Your task to perform on an android device: see sites visited before in the chrome app Image 0: 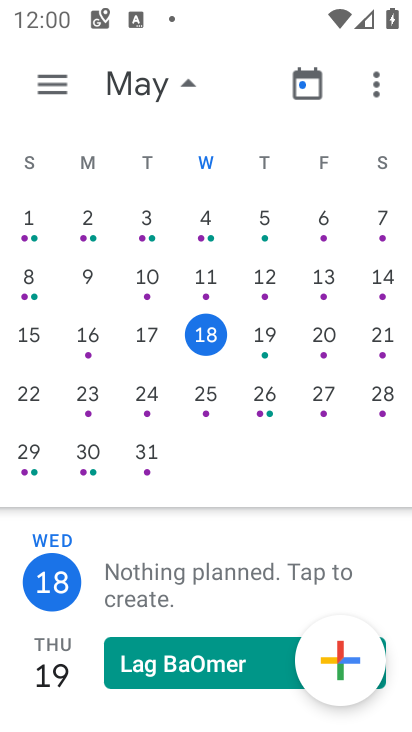
Step 0: press home button
Your task to perform on an android device: see sites visited before in the chrome app Image 1: 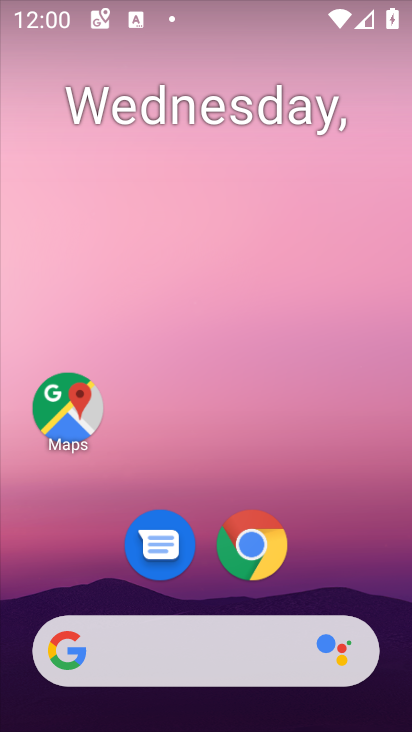
Step 1: click (250, 547)
Your task to perform on an android device: see sites visited before in the chrome app Image 2: 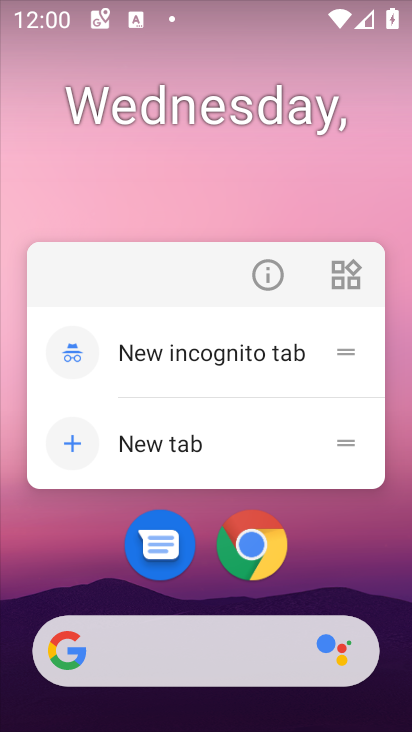
Step 2: click (245, 550)
Your task to perform on an android device: see sites visited before in the chrome app Image 3: 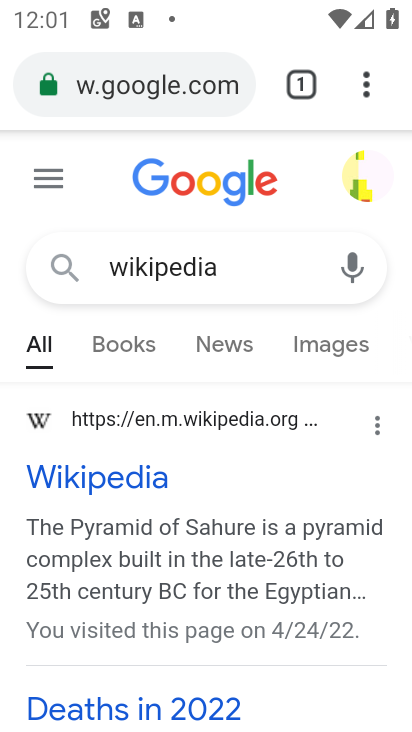
Step 3: click (367, 92)
Your task to perform on an android device: see sites visited before in the chrome app Image 4: 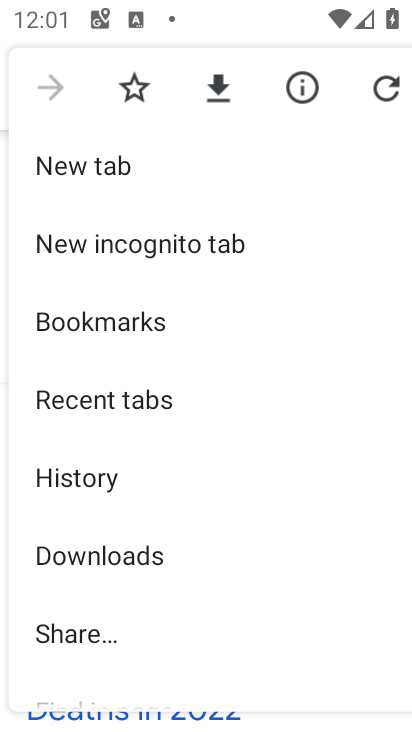
Step 4: click (138, 408)
Your task to perform on an android device: see sites visited before in the chrome app Image 5: 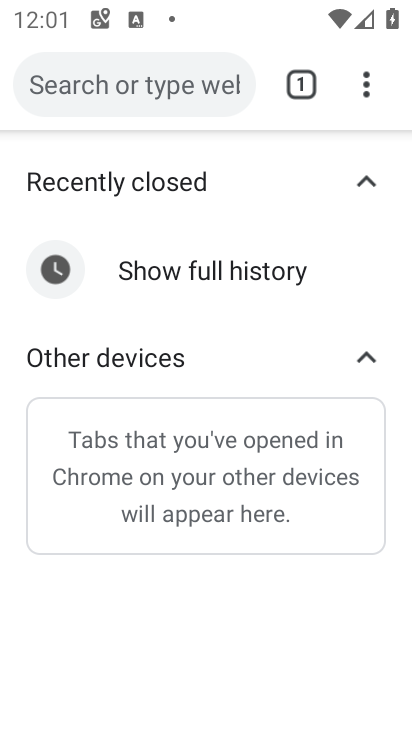
Step 5: task complete